Your task to perform on an android device: open the mobile data screen to see how much data has been used Image 0: 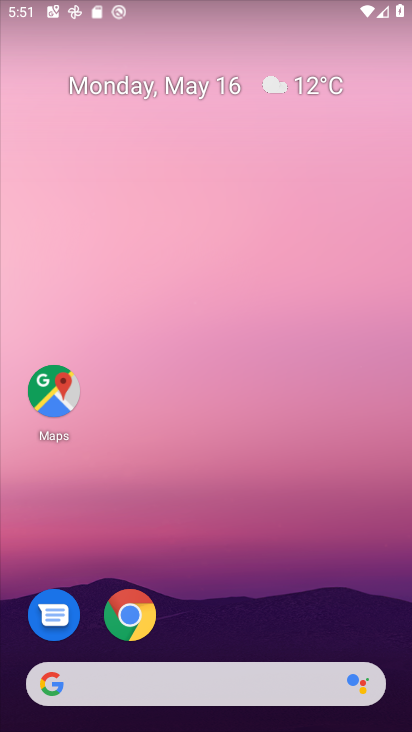
Step 0: drag from (255, 246) to (290, 18)
Your task to perform on an android device: open the mobile data screen to see how much data has been used Image 1: 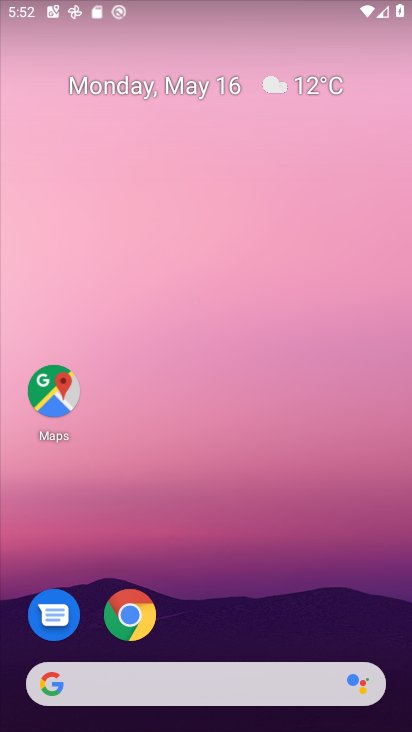
Step 1: drag from (223, 570) to (295, 71)
Your task to perform on an android device: open the mobile data screen to see how much data has been used Image 2: 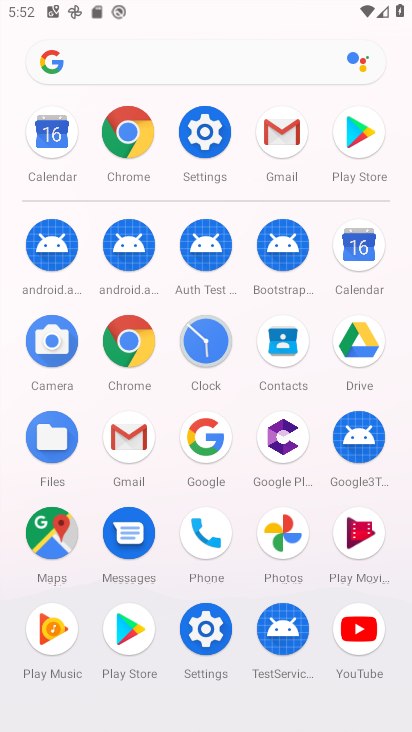
Step 2: click (197, 633)
Your task to perform on an android device: open the mobile data screen to see how much data has been used Image 3: 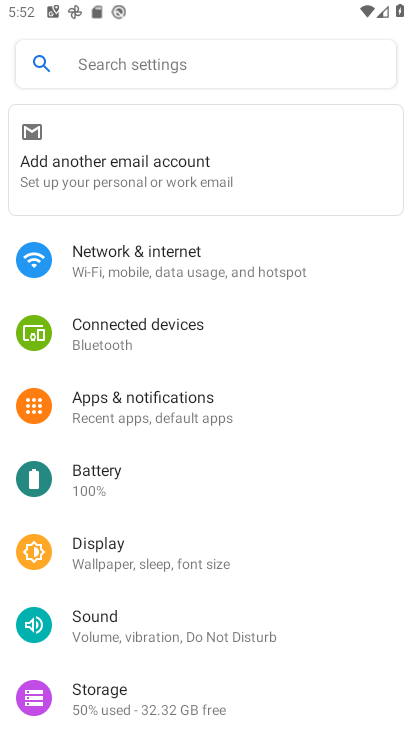
Step 3: click (121, 265)
Your task to perform on an android device: open the mobile data screen to see how much data has been used Image 4: 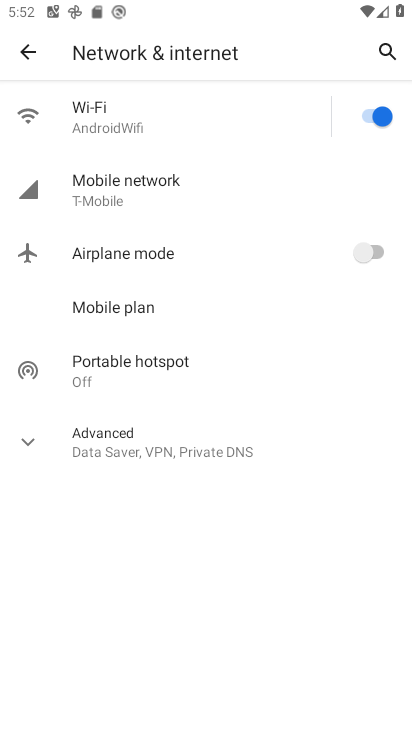
Step 4: click (123, 201)
Your task to perform on an android device: open the mobile data screen to see how much data has been used Image 5: 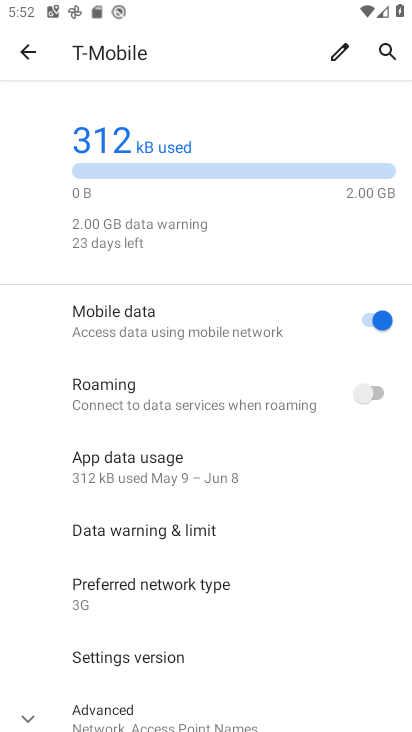
Step 5: task complete